Your task to perform on an android device: toggle priority inbox in the gmail app Image 0: 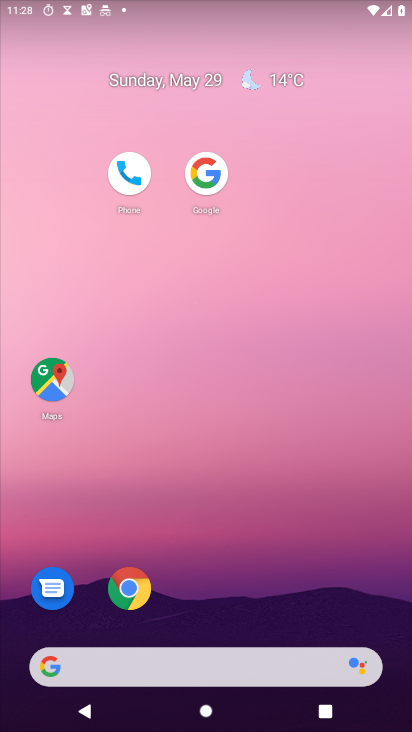
Step 0: drag from (247, 605) to (102, 145)
Your task to perform on an android device: toggle priority inbox in the gmail app Image 1: 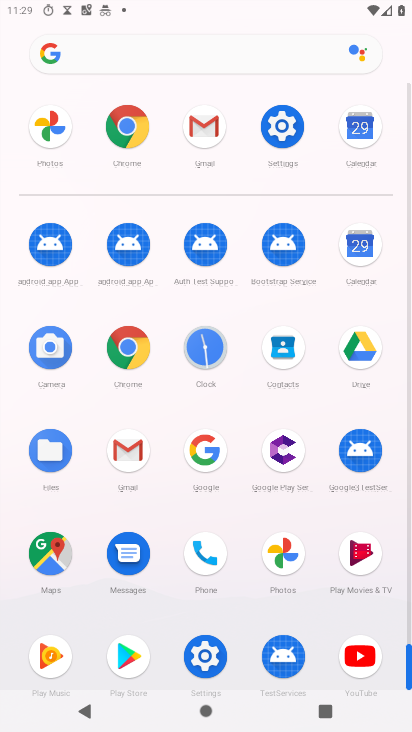
Step 1: click (120, 440)
Your task to perform on an android device: toggle priority inbox in the gmail app Image 2: 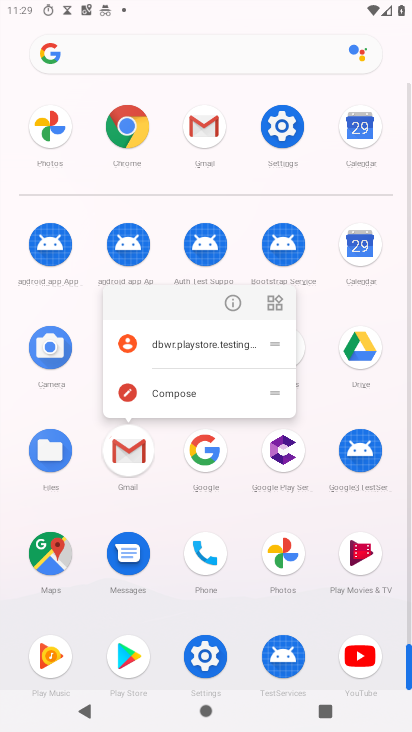
Step 2: click (122, 440)
Your task to perform on an android device: toggle priority inbox in the gmail app Image 3: 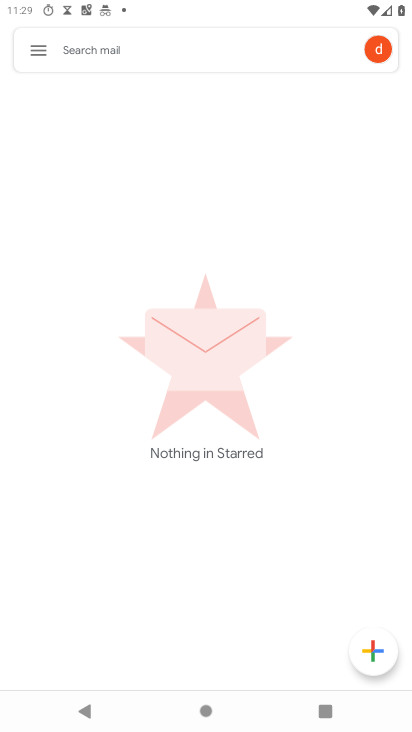
Step 3: click (34, 47)
Your task to perform on an android device: toggle priority inbox in the gmail app Image 4: 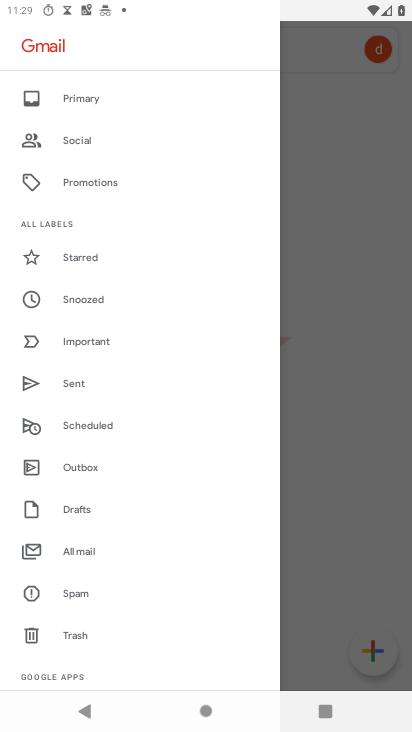
Step 4: drag from (81, 531) to (69, 183)
Your task to perform on an android device: toggle priority inbox in the gmail app Image 5: 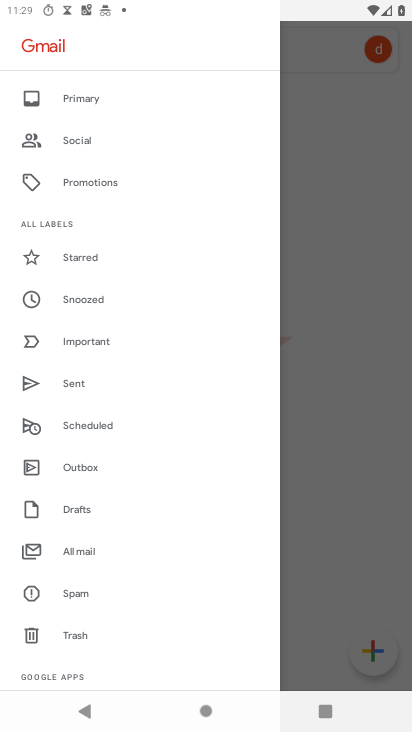
Step 5: drag from (108, 430) to (107, 101)
Your task to perform on an android device: toggle priority inbox in the gmail app Image 6: 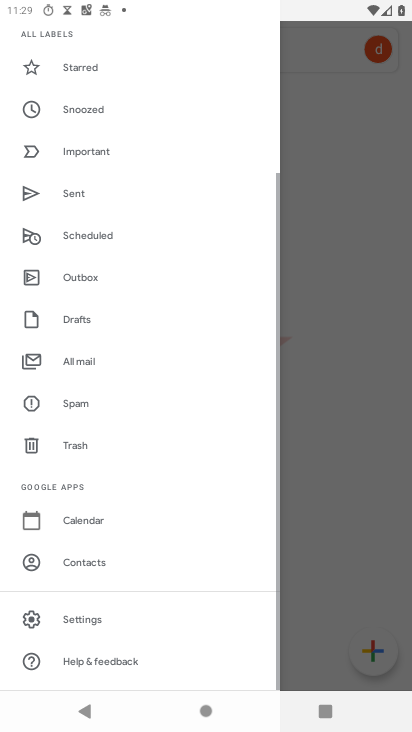
Step 6: drag from (54, 331) to (54, 105)
Your task to perform on an android device: toggle priority inbox in the gmail app Image 7: 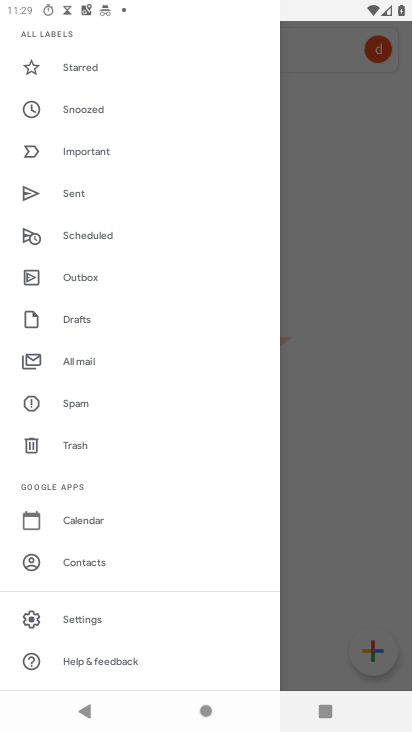
Step 7: click (80, 615)
Your task to perform on an android device: toggle priority inbox in the gmail app Image 8: 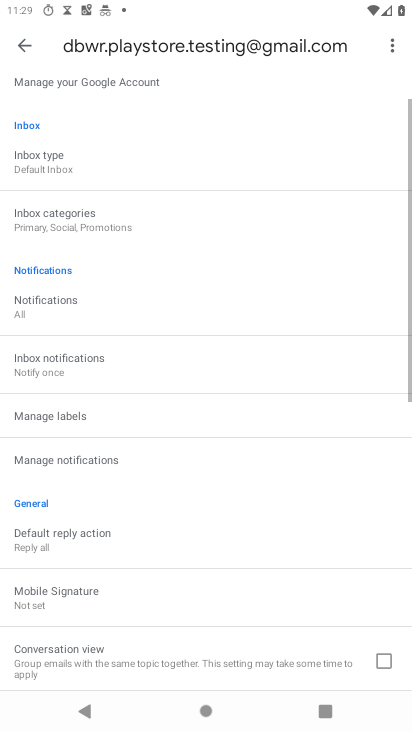
Step 8: click (81, 615)
Your task to perform on an android device: toggle priority inbox in the gmail app Image 9: 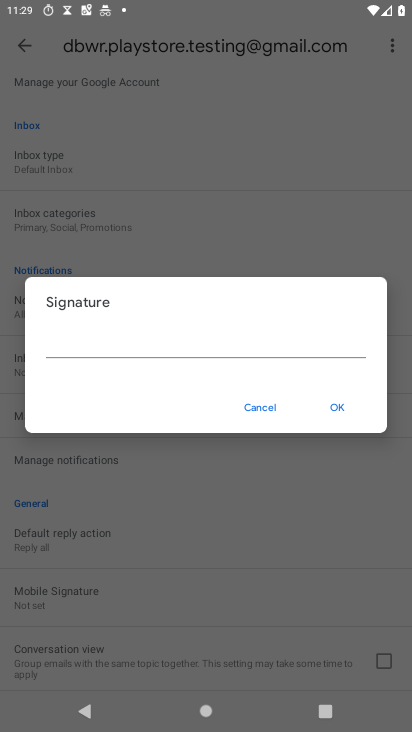
Step 9: click (265, 407)
Your task to perform on an android device: toggle priority inbox in the gmail app Image 10: 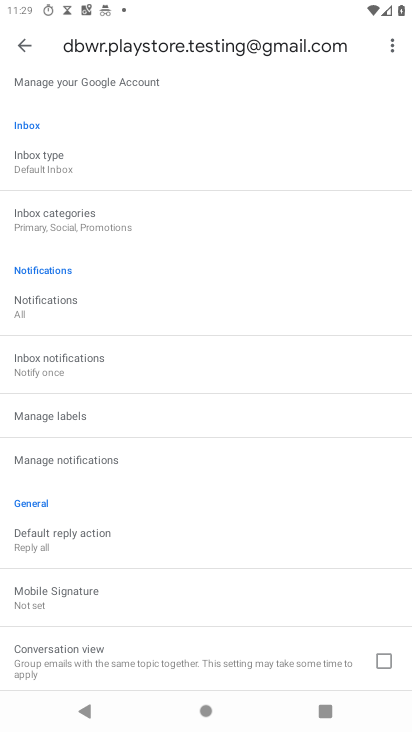
Step 10: click (34, 157)
Your task to perform on an android device: toggle priority inbox in the gmail app Image 11: 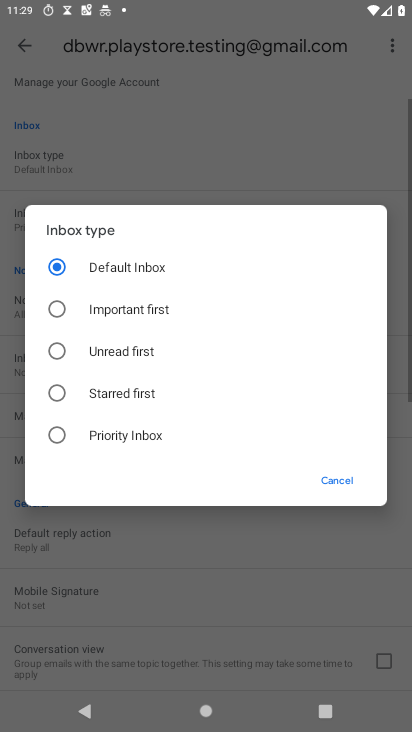
Step 11: click (43, 161)
Your task to perform on an android device: toggle priority inbox in the gmail app Image 12: 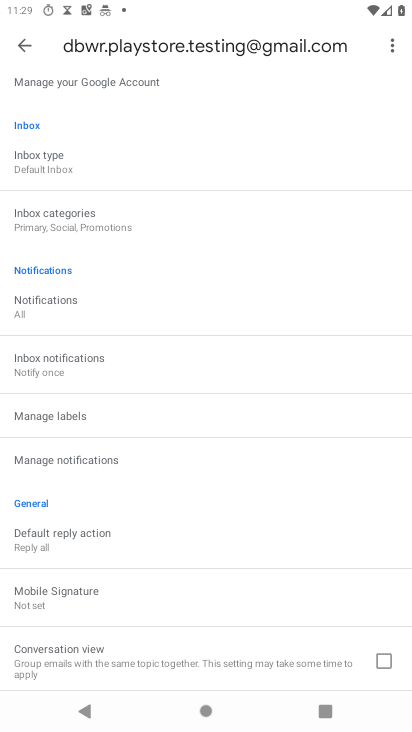
Step 12: click (38, 157)
Your task to perform on an android device: toggle priority inbox in the gmail app Image 13: 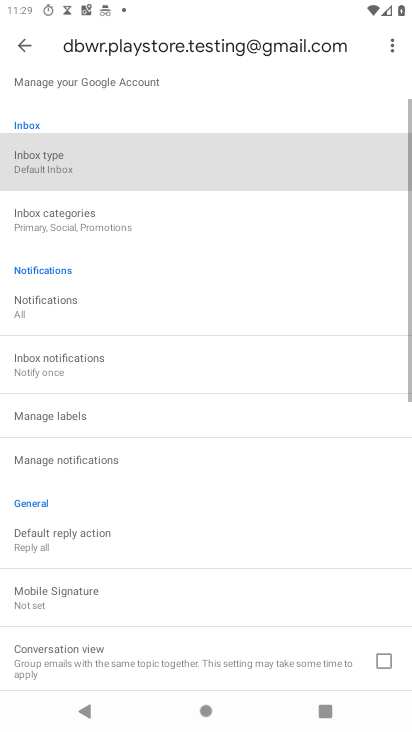
Step 13: click (38, 157)
Your task to perform on an android device: toggle priority inbox in the gmail app Image 14: 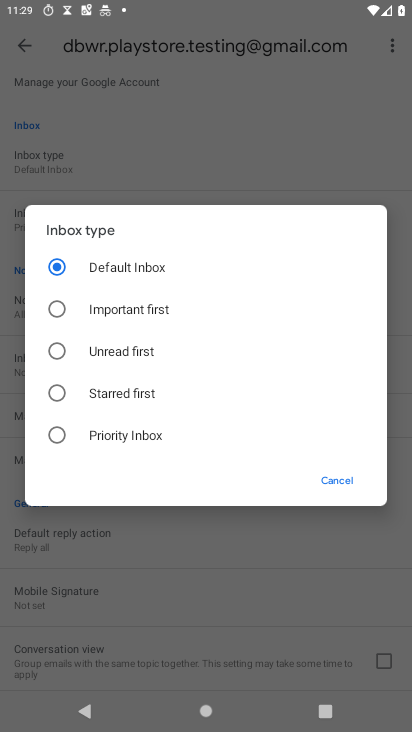
Step 14: click (52, 436)
Your task to perform on an android device: toggle priority inbox in the gmail app Image 15: 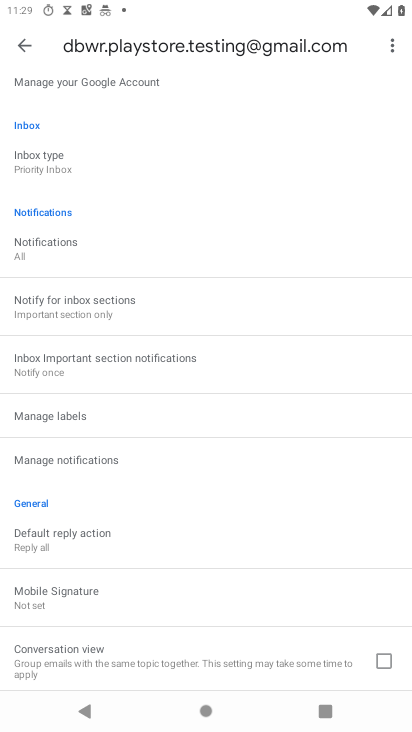
Step 15: task complete